Your task to perform on an android device: See recent photos Image 0: 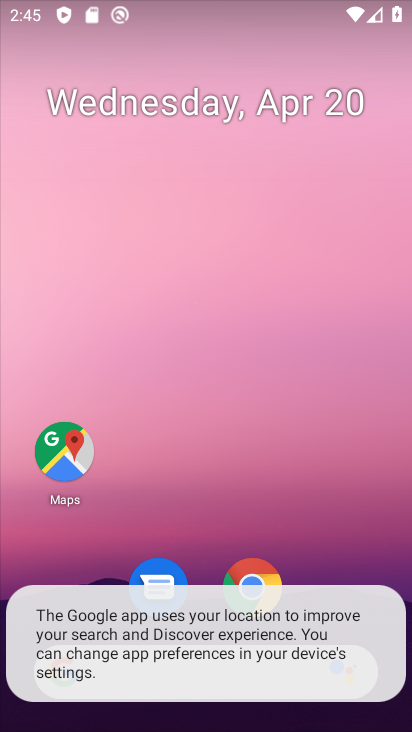
Step 0: drag from (202, 533) to (360, 74)
Your task to perform on an android device: See recent photos Image 1: 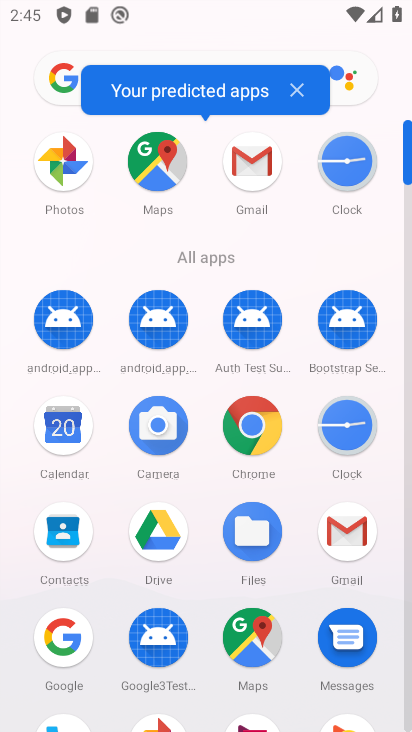
Step 1: click (63, 184)
Your task to perform on an android device: See recent photos Image 2: 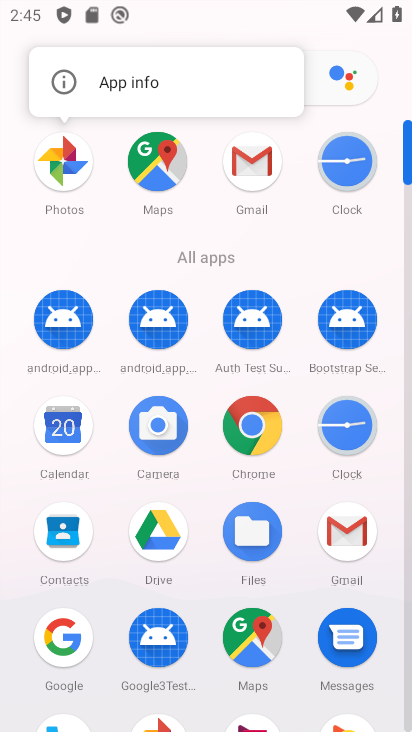
Step 2: click (65, 180)
Your task to perform on an android device: See recent photos Image 3: 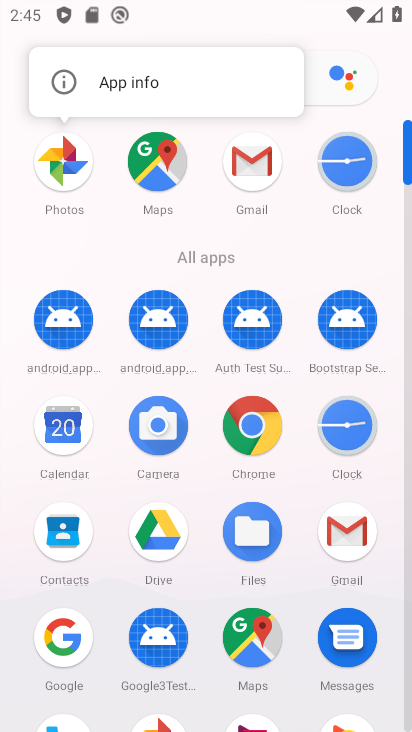
Step 3: click (66, 178)
Your task to perform on an android device: See recent photos Image 4: 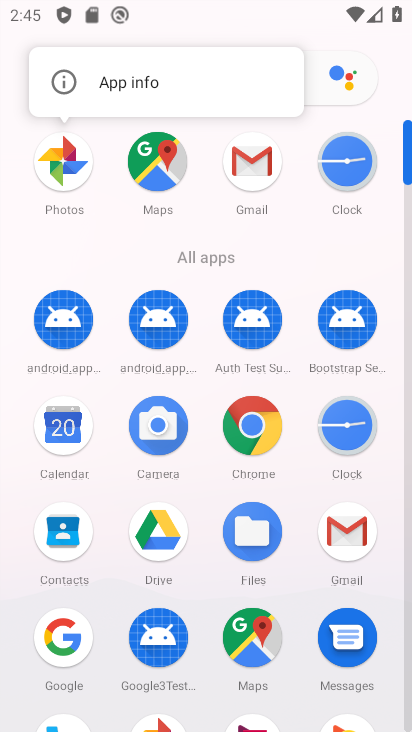
Step 4: click (67, 178)
Your task to perform on an android device: See recent photos Image 5: 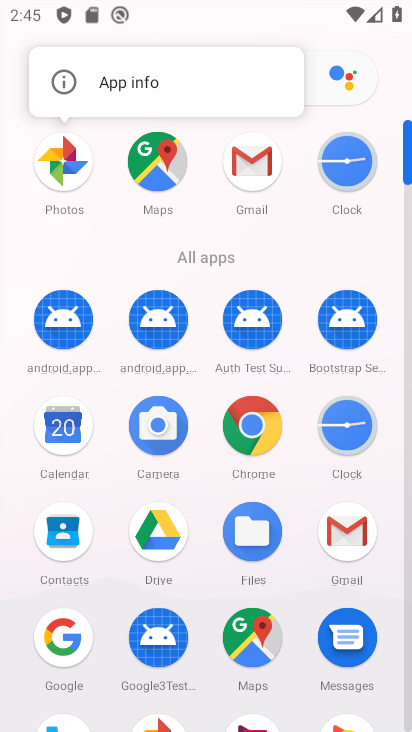
Step 5: click (67, 178)
Your task to perform on an android device: See recent photos Image 6: 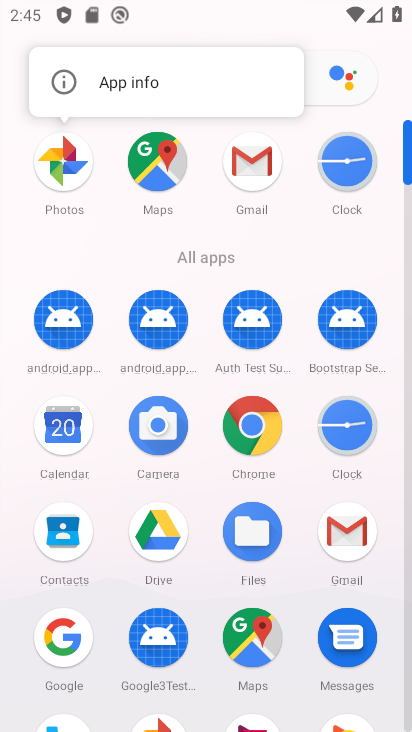
Step 6: click (68, 178)
Your task to perform on an android device: See recent photos Image 7: 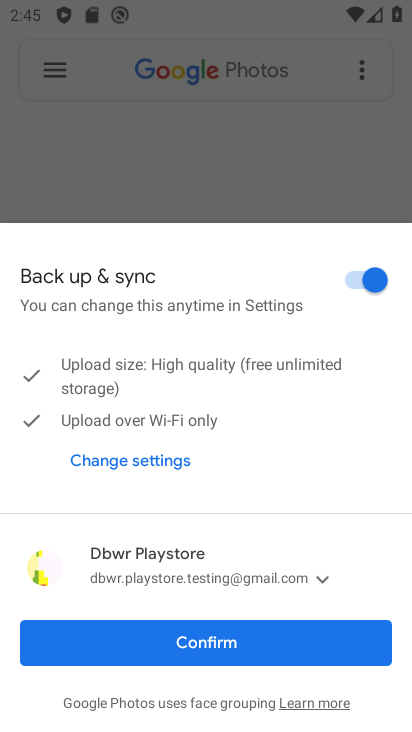
Step 7: click (238, 639)
Your task to perform on an android device: See recent photos Image 8: 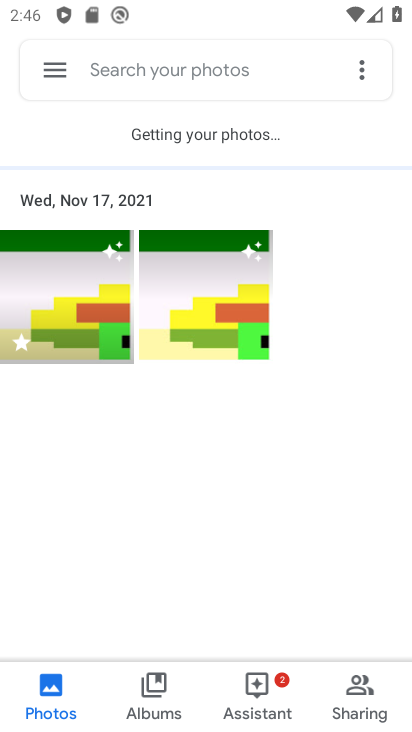
Step 8: task complete